Your task to perform on an android device: see tabs open on other devices in the chrome app Image 0: 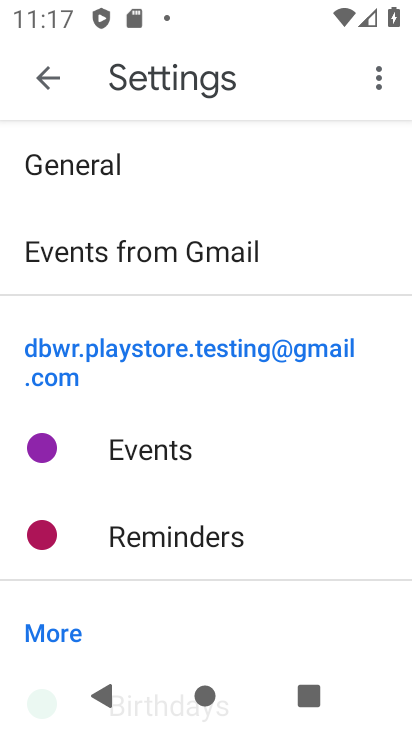
Step 0: press home button
Your task to perform on an android device: see tabs open on other devices in the chrome app Image 1: 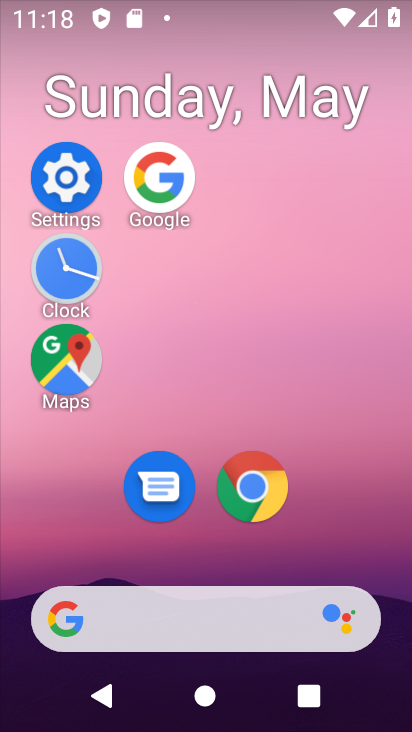
Step 1: click (250, 500)
Your task to perform on an android device: see tabs open on other devices in the chrome app Image 2: 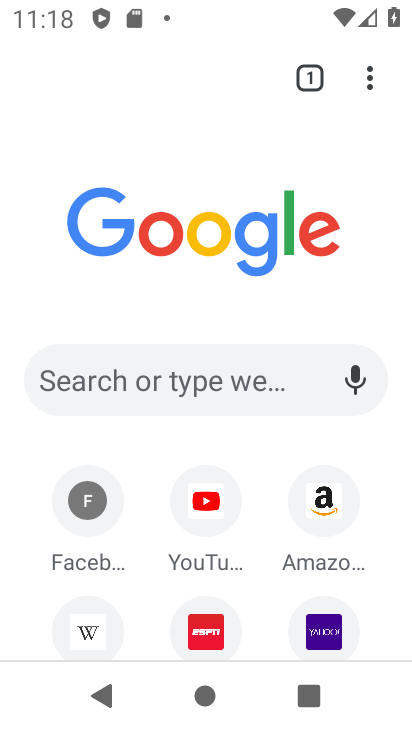
Step 2: click (315, 83)
Your task to perform on an android device: see tabs open on other devices in the chrome app Image 3: 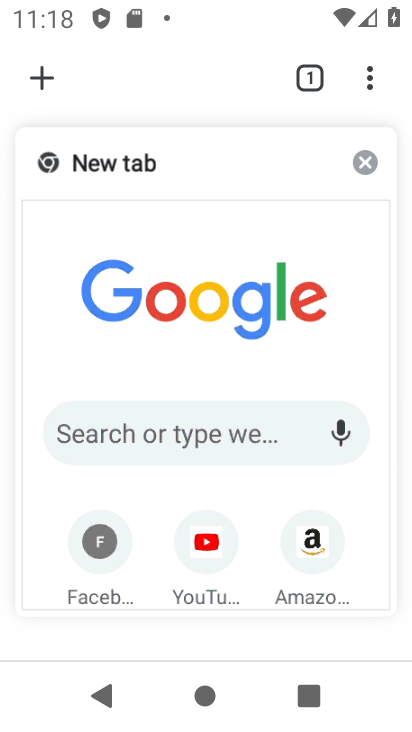
Step 3: click (56, 77)
Your task to perform on an android device: see tabs open on other devices in the chrome app Image 4: 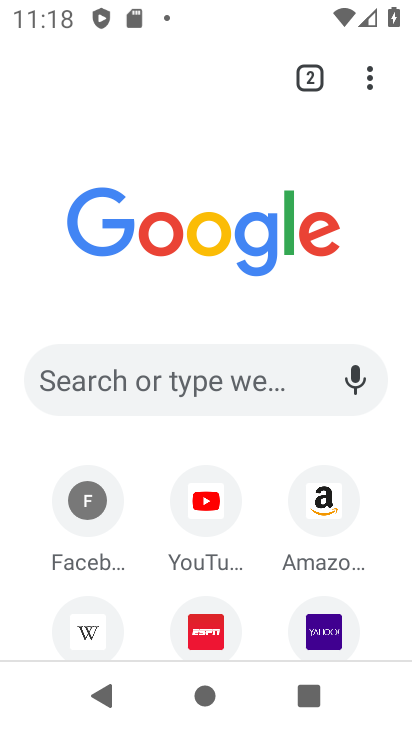
Step 4: task complete